Your task to perform on an android device: set default search engine in the chrome app Image 0: 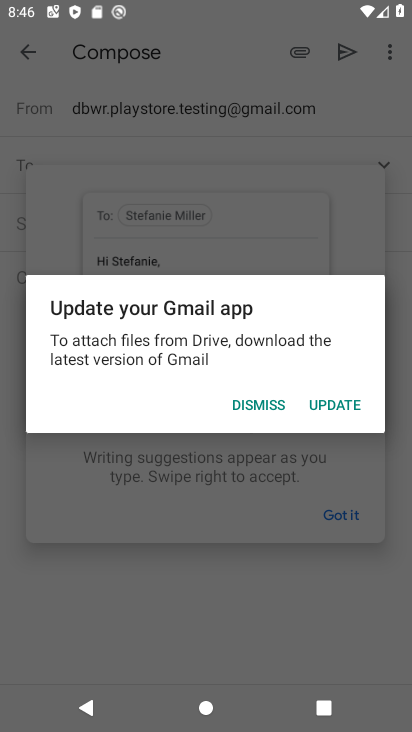
Step 0: press home button
Your task to perform on an android device: set default search engine in the chrome app Image 1: 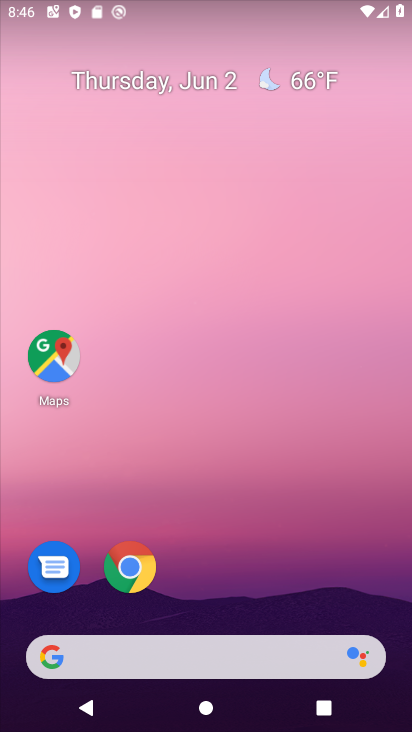
Step 1: drag from (225, 572) to (266, 67)
Your task to perform on an android device: set default search engine in the chrome app Image 2: 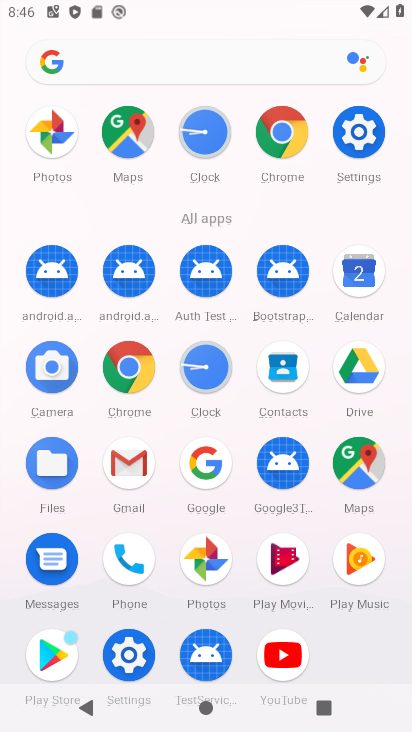
Step 2: click (127, 378)
Your task to perform on an android device: set default search engine in the chrome app Image 3: 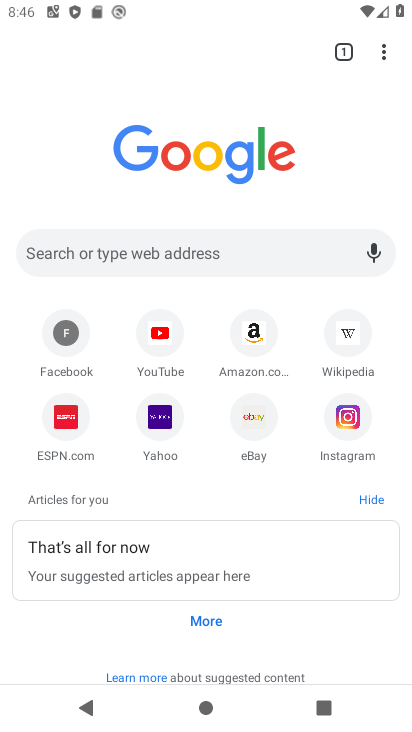
Step 3: click (391, 58)
Your task to perform on an android device: set default search engine in the chrome app Image 4: 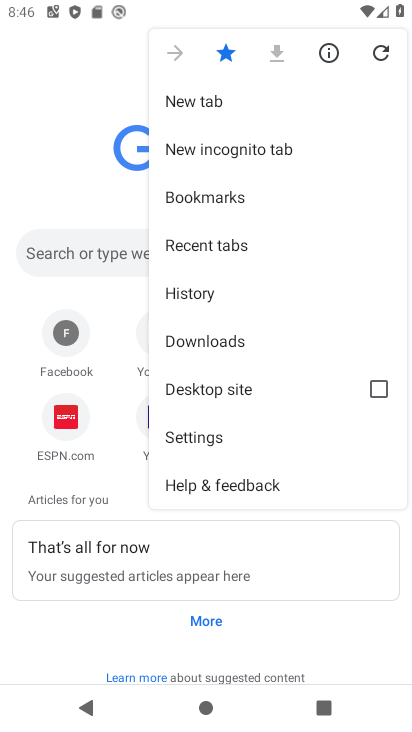
Step 4: click (204, 425)
Your task to perform on an android device: set default search engine in the chrome app Image 5: 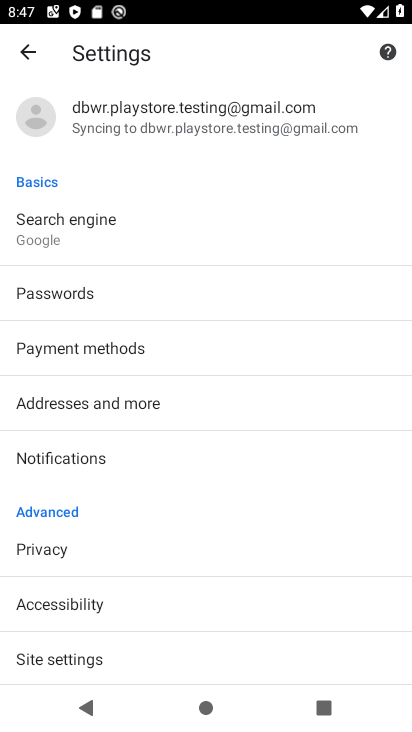
Step 5: click (104, 228)
Your task to perform on an android device: set default search engine in the chrome app Image 6: 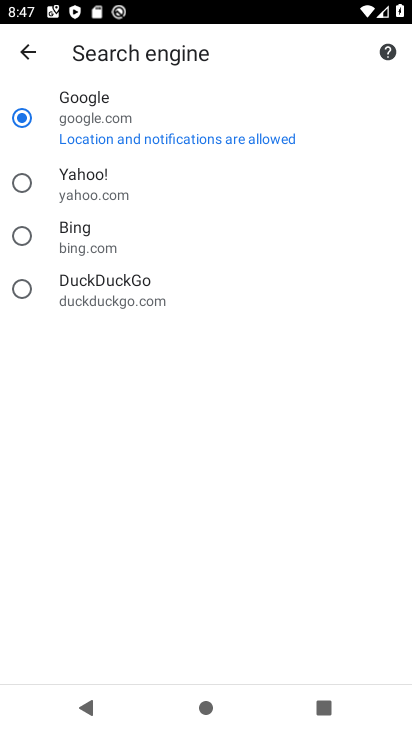
Step 6: click (83, 138)
Your task to perform on an android device: set default search engine in the chrome app Image 7: 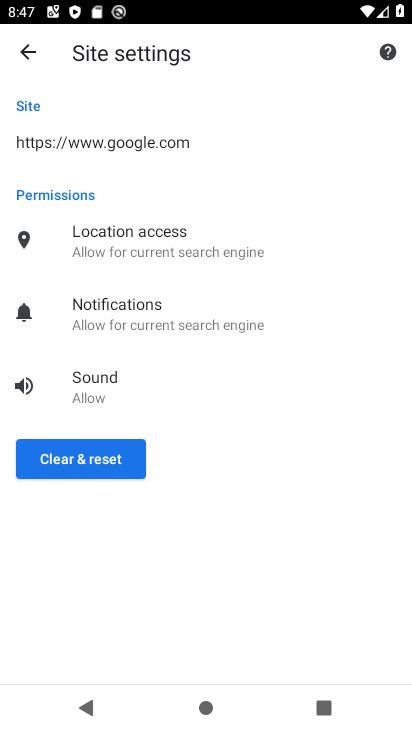
Step 7: click (112, 458)
Your task to perform on an android device: set default search engine in the chrome app Image 8: 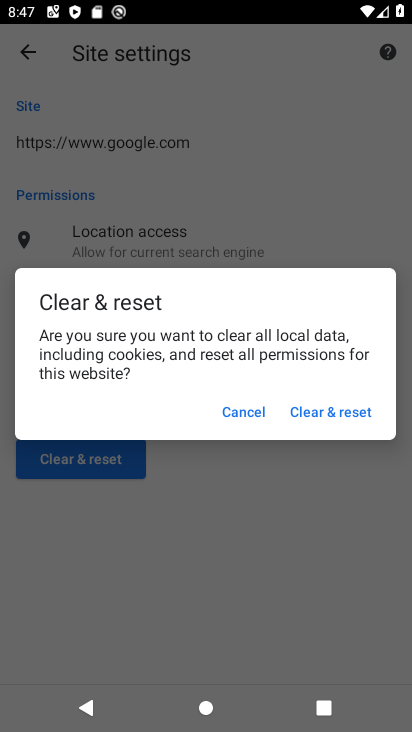
Step 8: click (330, 419)
Your task to perform on an android device: set default search engine in the chrome app Image 9: 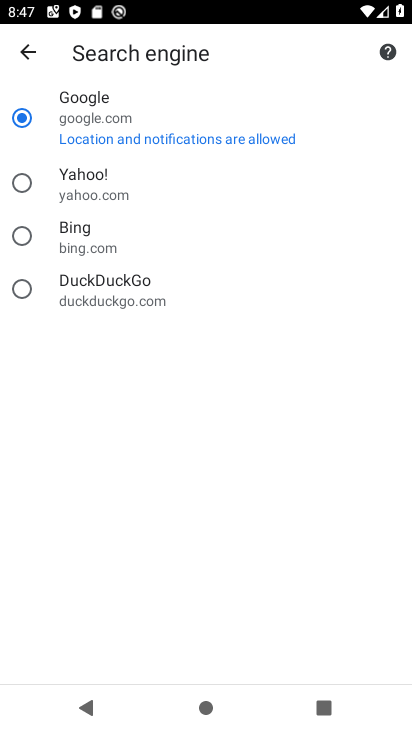
Step 9: task complete